Your task to perform on an android device: Go to Reddit.com Image 0: 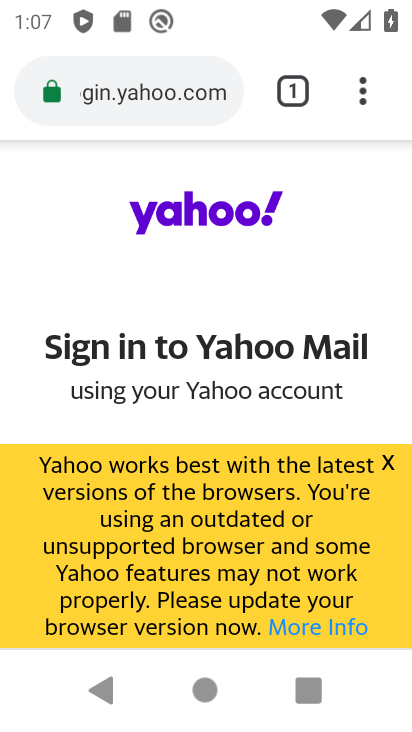
Step 0: click (197, 98)
Your task to perform on an android device: Go to Reddit.com Image 1: 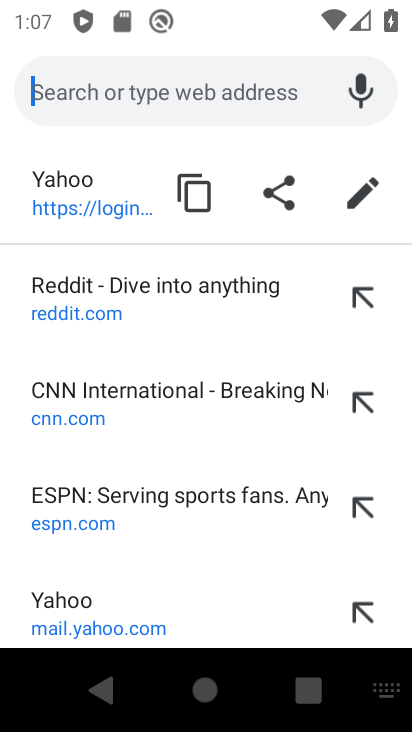
Step 1: click (237, 301)
Your task to perform on an android device: Go to Reddit.com Image 2: 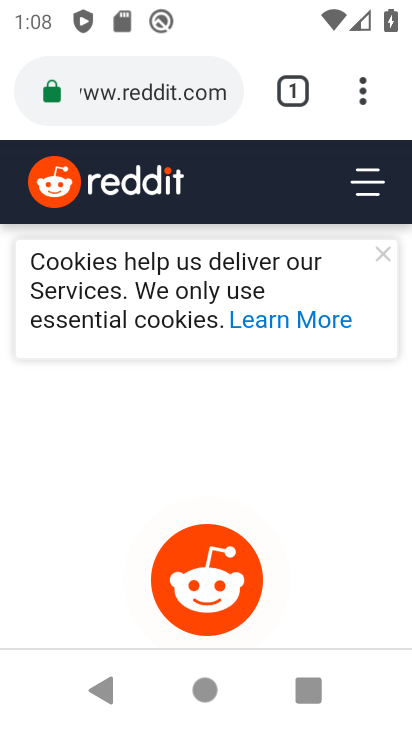
Step 2: task complete